Your task to perform on an android device: Open display settings Image 0: 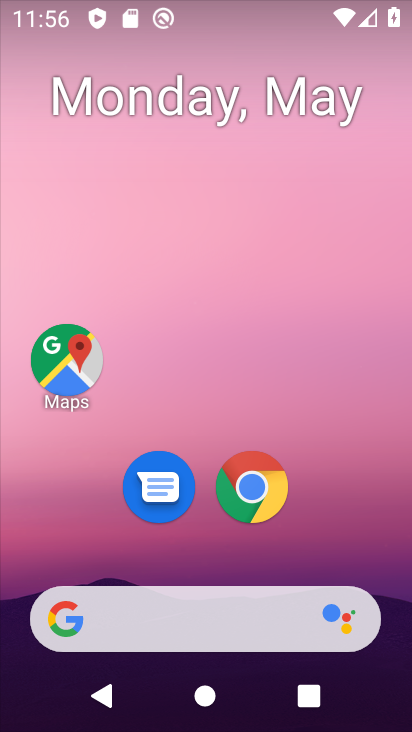
Step 0: drag from (320, 428) to (230, 0)
Your task to perform on an android device: Open display settings Image 1: 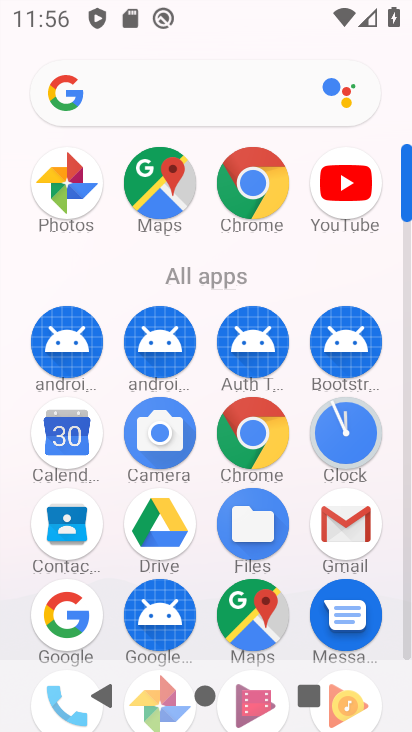
Step 1: drag from (210, 610) to (206, 199)
Your task to perform on an android device: Open display settings Image 2: 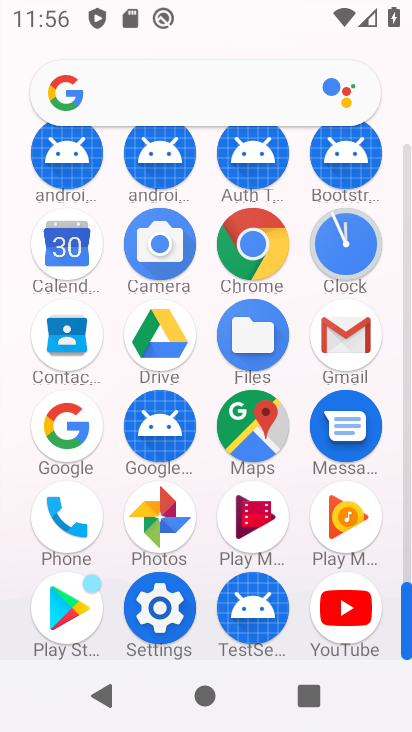
Step 2: click (163, 599)
Your task to perform on an android device: Open display settings Image 3: 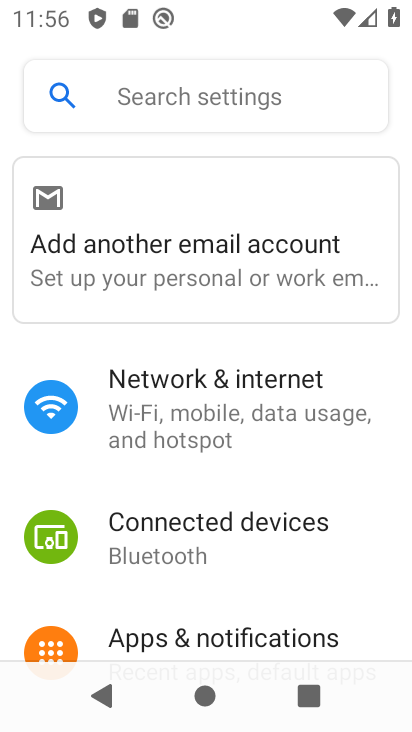
Step 3: drag from (239, 594) to (262, 219)
Your task to perform on an android device: Open display settings Image 4: 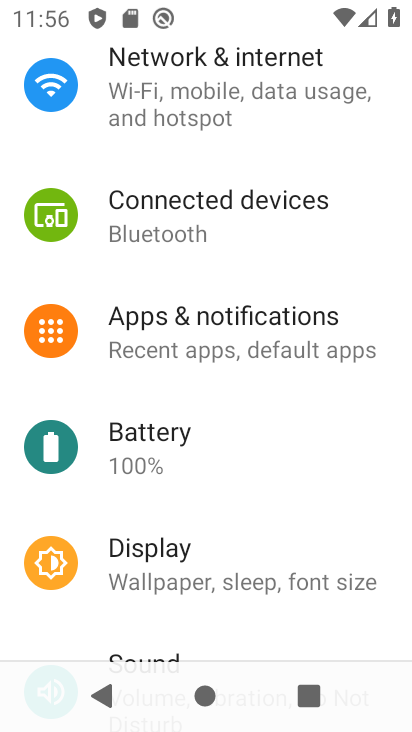
Step 4: click (213, 550)
Your task to perform on an android device: Open display settings Image 5: 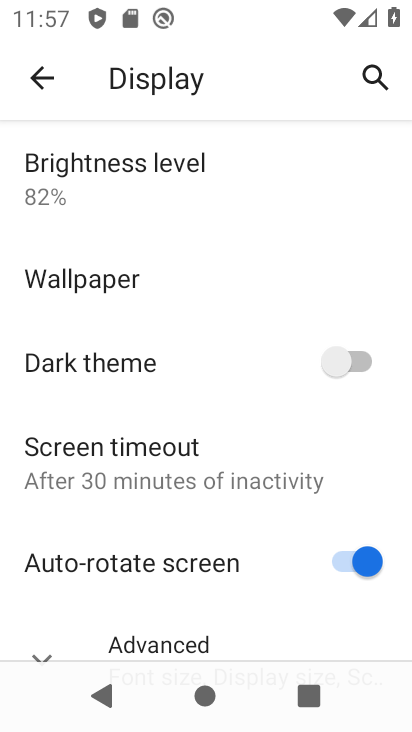
Step 5: task complete